Your task to perform on an android device: open app "The Home Depot" (install if not already installed) Image 0: 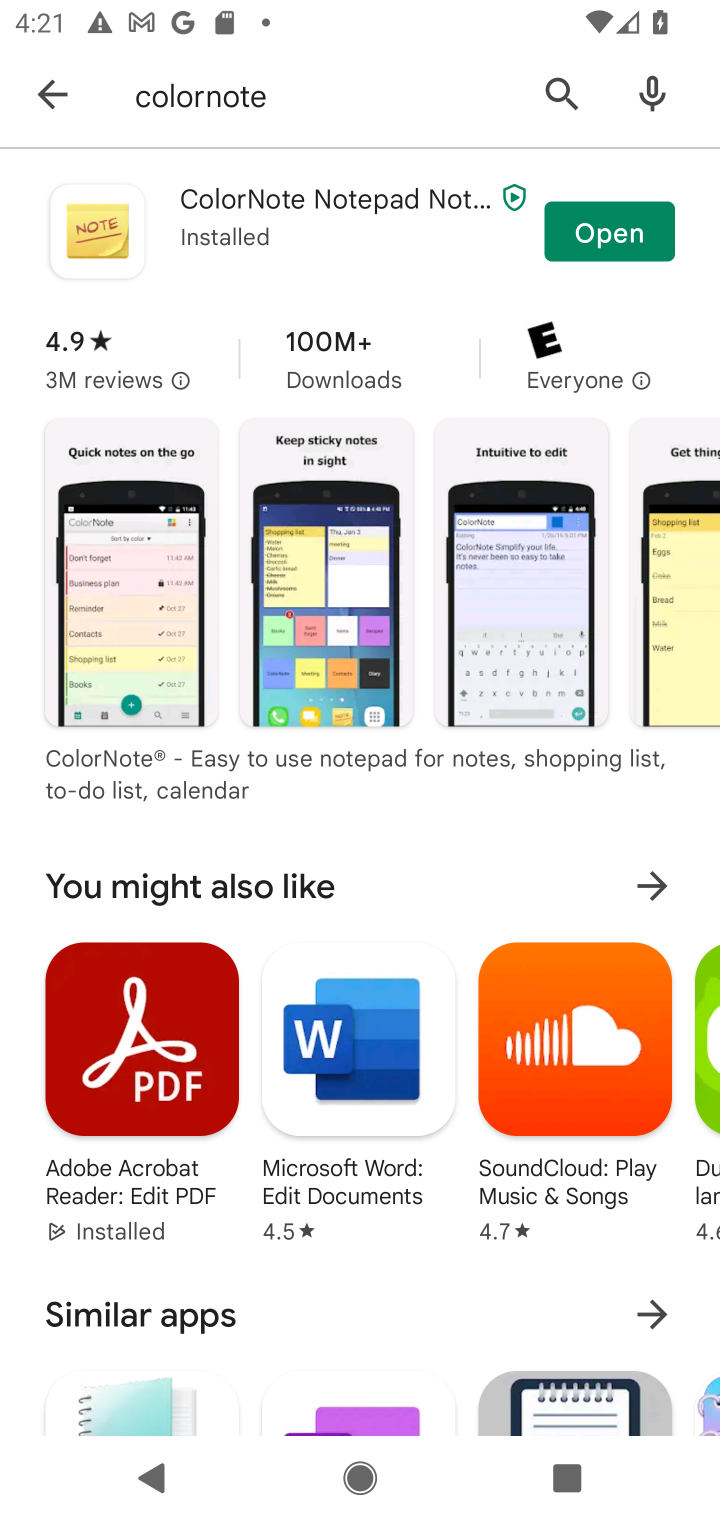
Step 0: click (241, 90)
Your task to perform on an android device: open app "The Home Depot" (install if not already installed) Image 1: 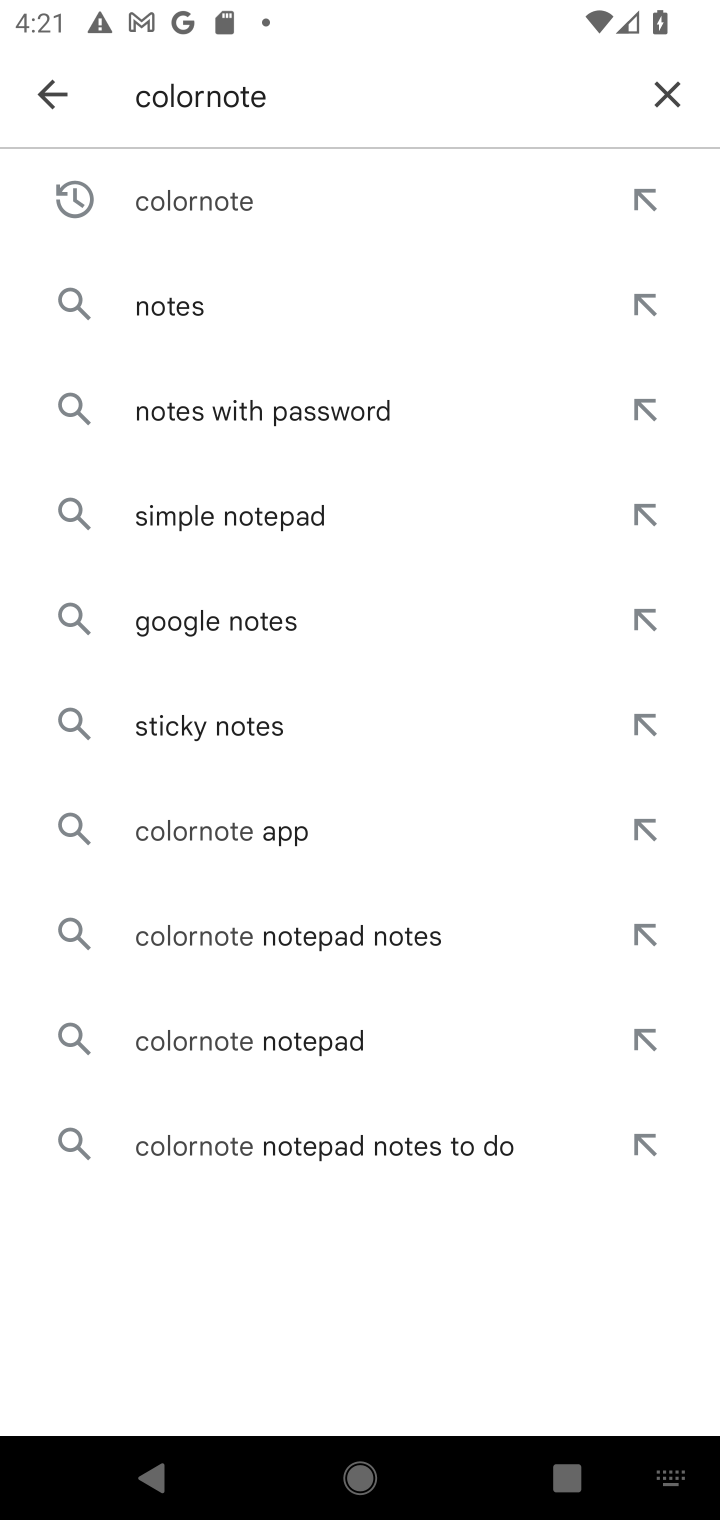
Step 1: click (666, 87)
Your task to perform on an android device: open app "The Home Depot" (install if not already installed) Image 2: 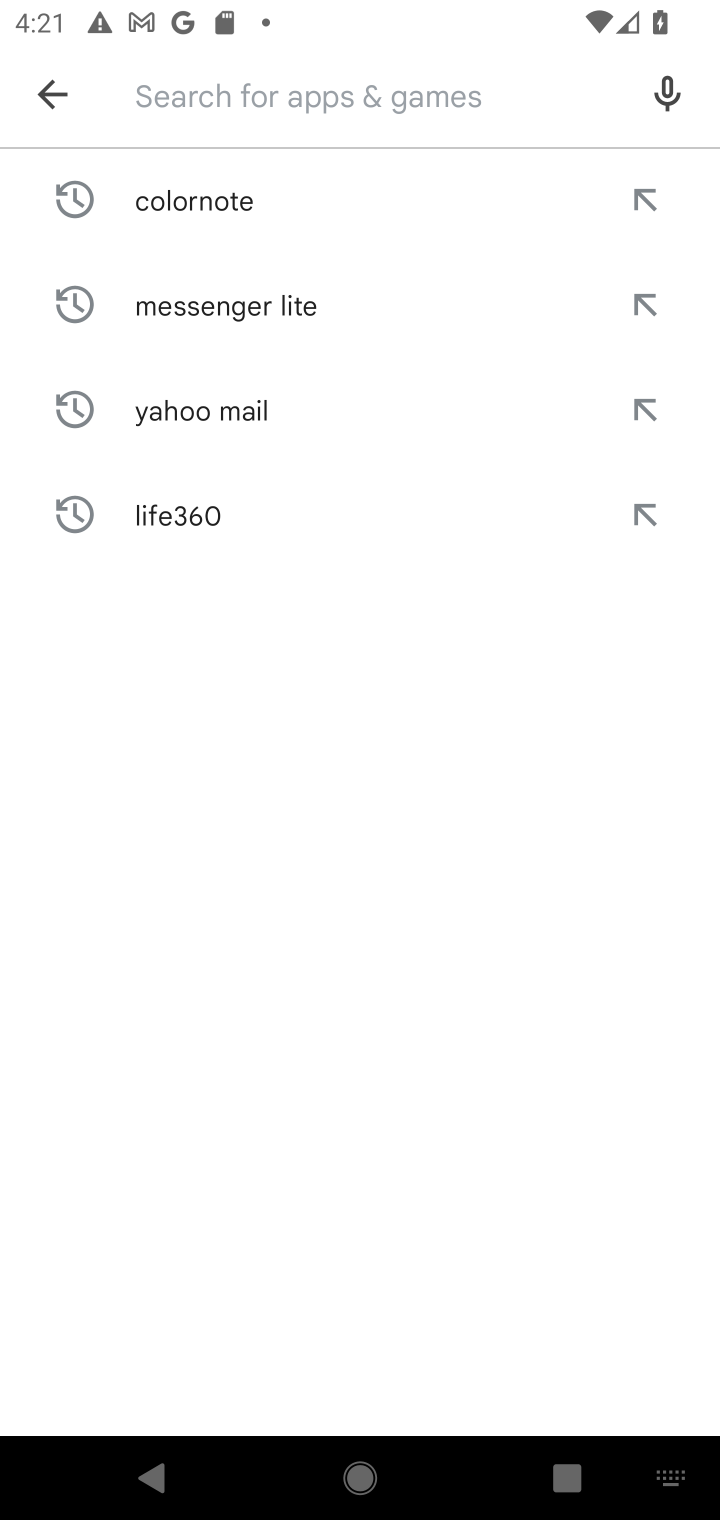
Step 2: type "The Home Depot"
Your task to perform on an android device: open app "The Home Depot" (install if not already installed) Image 3: 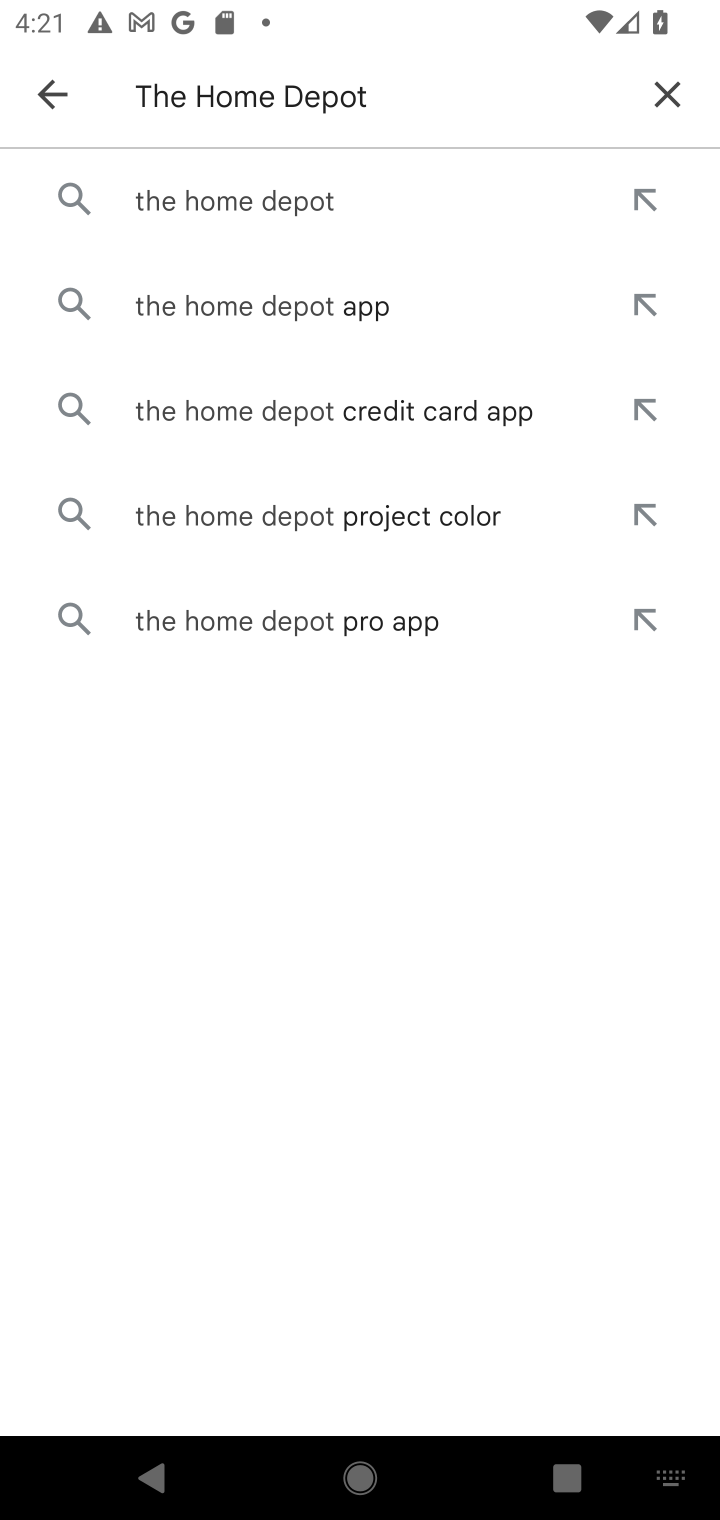
Step 3: click (324, 178)
Your task to perform on an android device: open app "The Home Depot" (install if not already installed) Image 4: 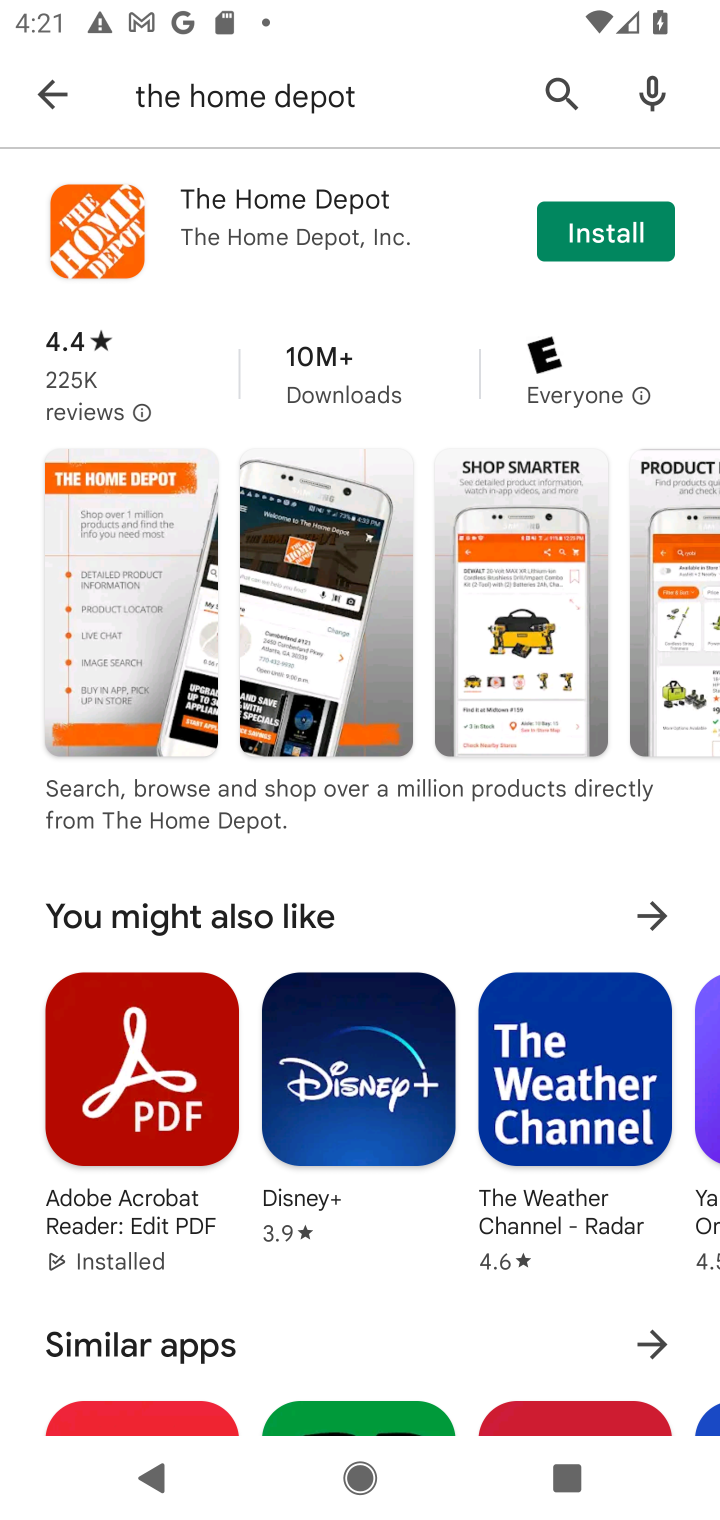
Step 4: click (626, 248)
Your task to perform on an android device: open app "The Home Depot" (install if not already installed) Image 5: 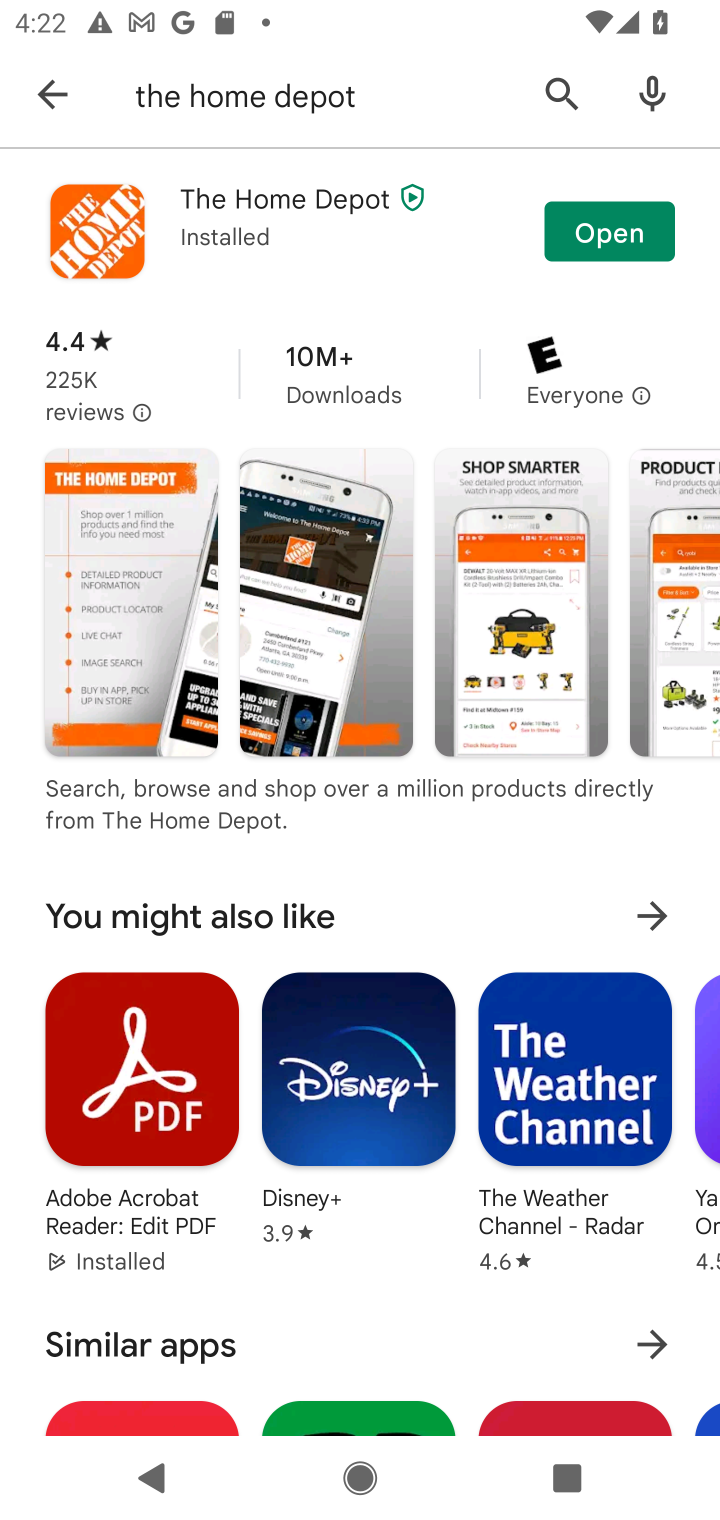
Step 5: click (581, 233)
Your task to perform on an android device: open app "The Home Depot" (install if not already installed) Image 6: 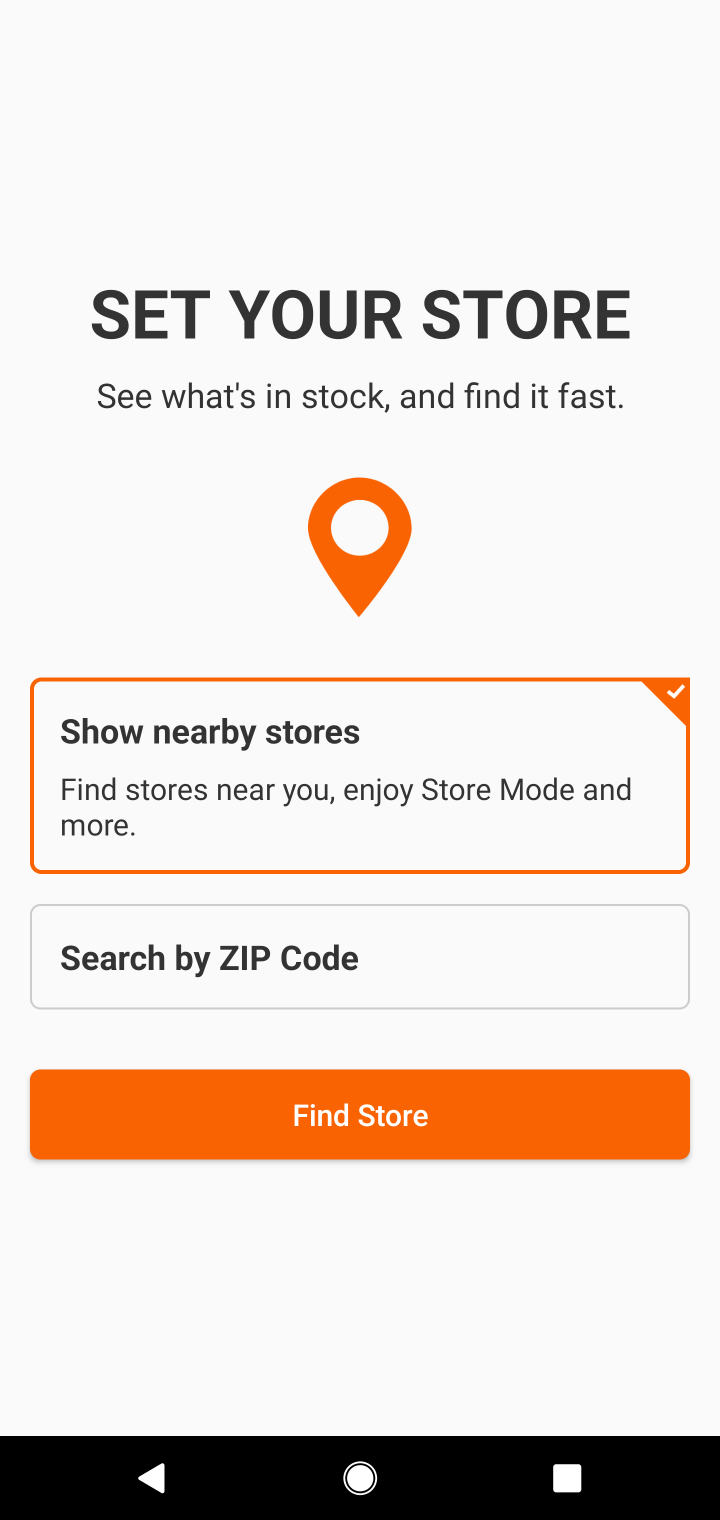
Step 6: task complete